Your task to perform on an android device: Go to CNN.com Image 0: 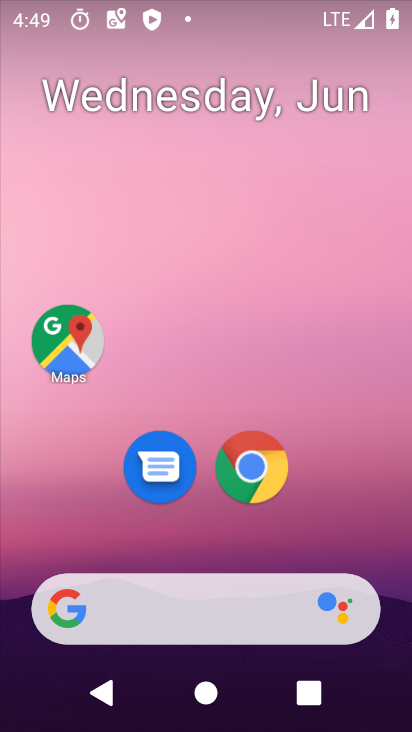
Step 0: click (252, 475)
Your task to perform on an android device: Go to CNN.com Image 1: 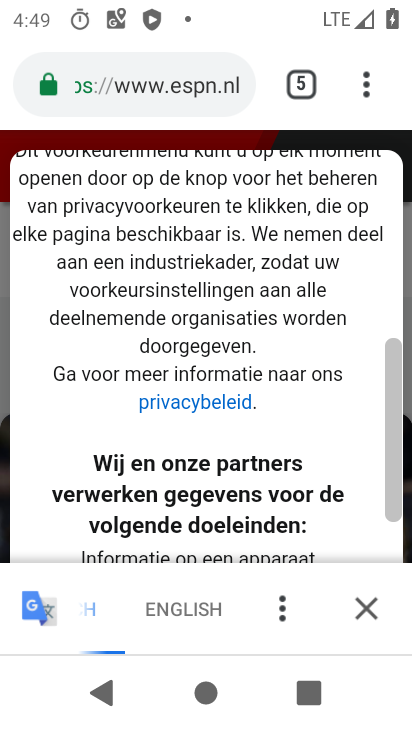
Step 1: click (303, 83)
Your task to perform on an android device: Go to CNN.com Image 2: 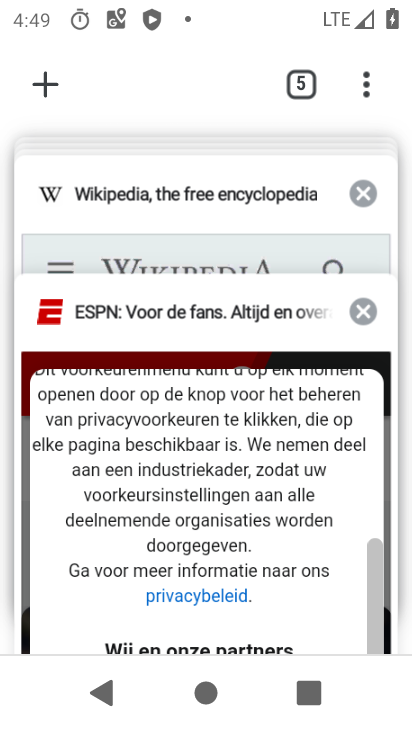
Step 2: drag from (153, 185) to (144, 556)
Your task to perform on an android device: Go to CNN.com Image 3: 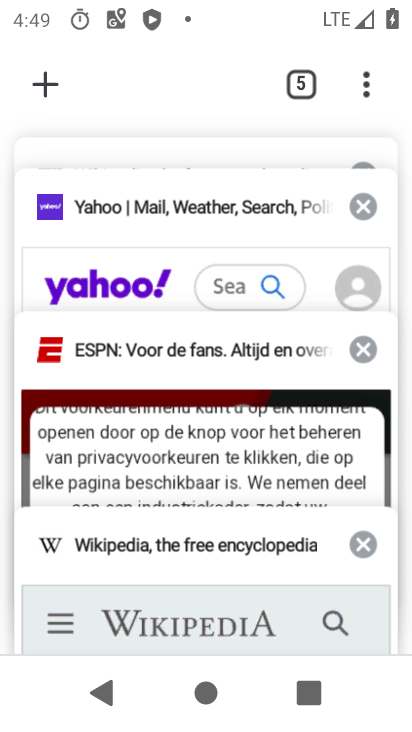
Step 3: click (40, 81)
Your task to perform on an android device: Go to CNN.com Image 4: 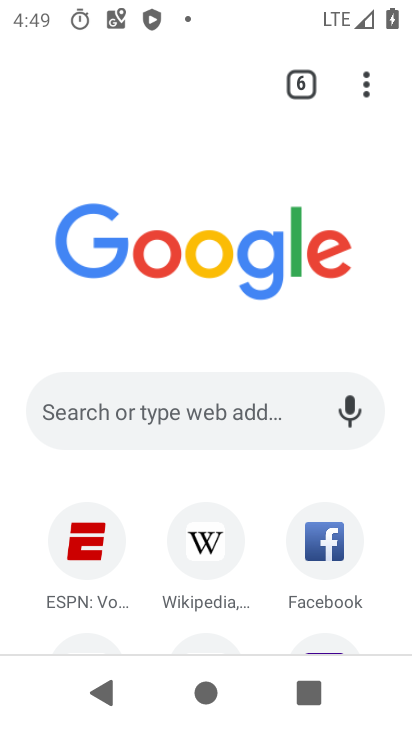
Step 4: drag from (226, 492) to (234, 134)
Your task to perform on an android device: Go to CNN.com Image 5: 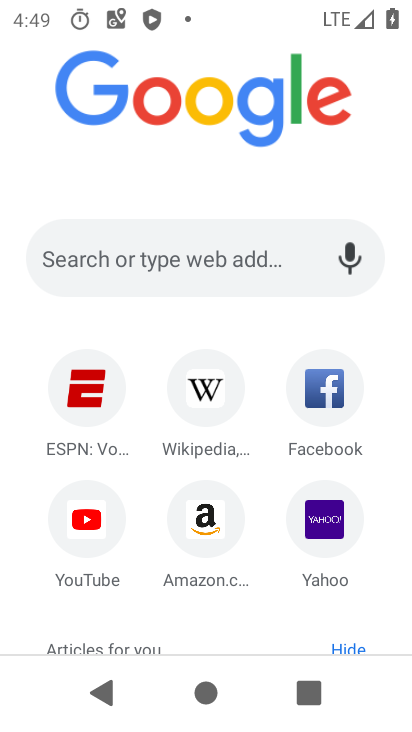
Step 5: click (224, 258)
Your task to perform on an android device: Go to CNN.com Image 6: 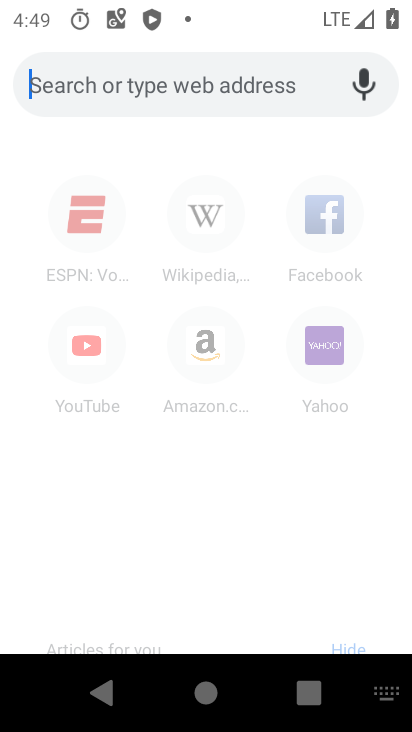
Step 6: type "CNN.com"
Your task to perform on an android device: Go to CNN.com Image 7: 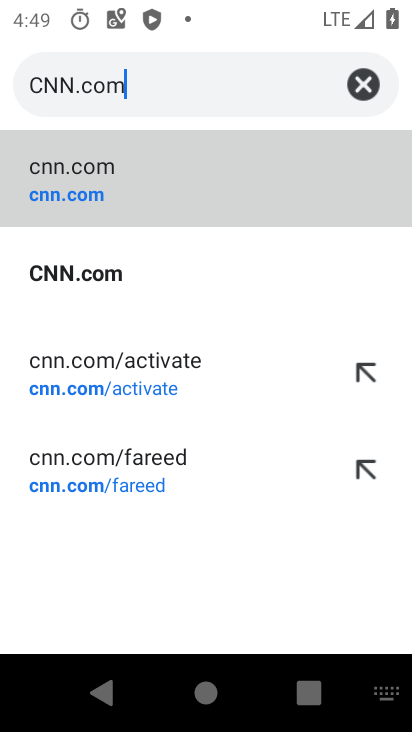
Step 7: click (142, 173)
Your task to perform on an android device: Go to CNN.com Image 8: 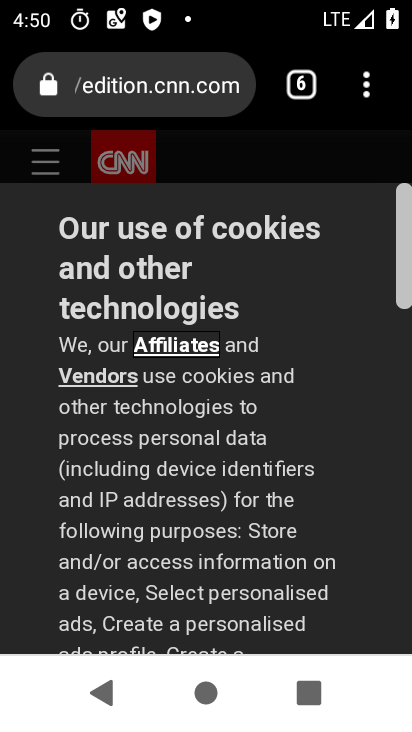
Step 8: task complete